Your task to perform on an android device: check data usage Image 0: 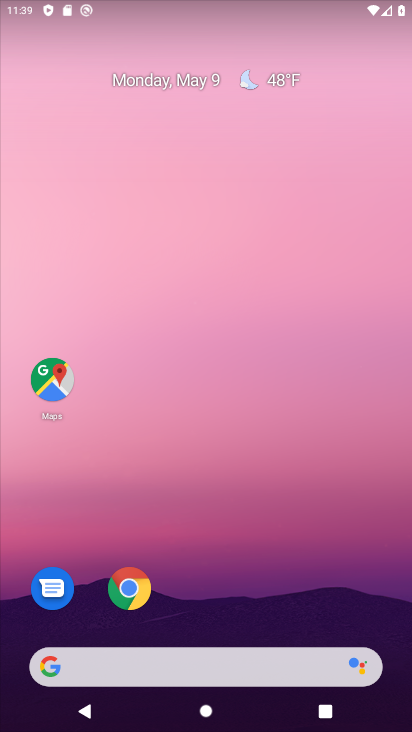
Step 0: drag from (251, 561) to (257, 219)
Your task to perform on an android device: check data usage Image 1: 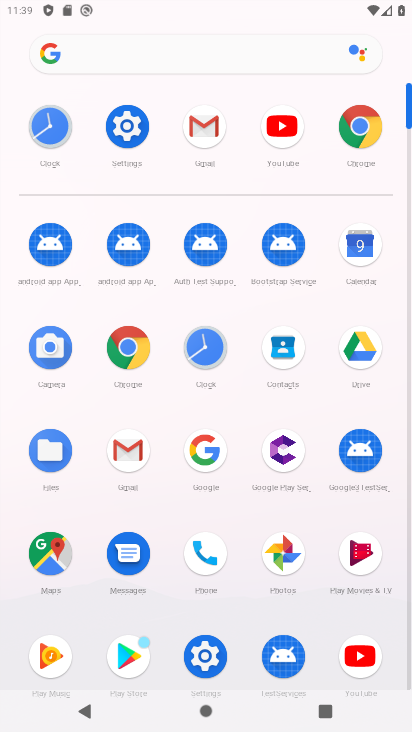
Step 1: click (120, 121)
Your task to perform on an android device: check data usage Image 2: 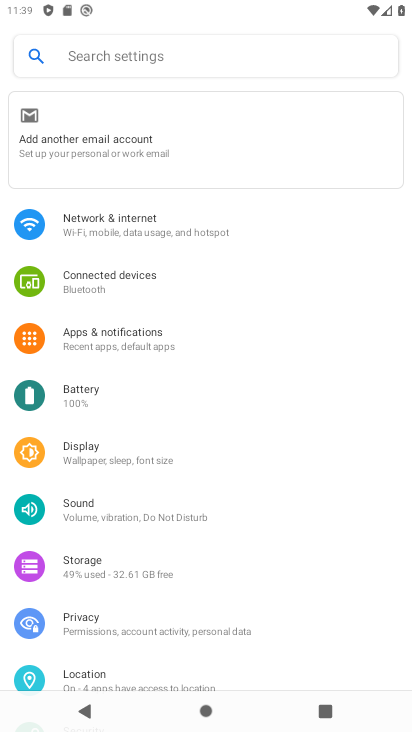
Step 2: click (163, 219)
Your task to perform on an android device: check data usage Image 3: 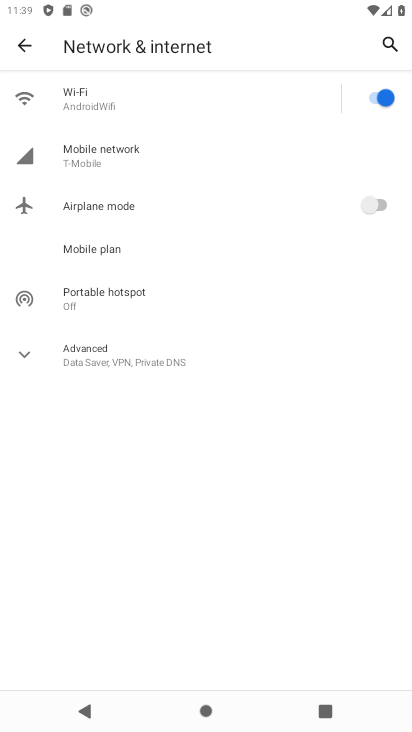
Step 3: click (148, 160)
Your task to perform on an android device: check data usage Image 4: 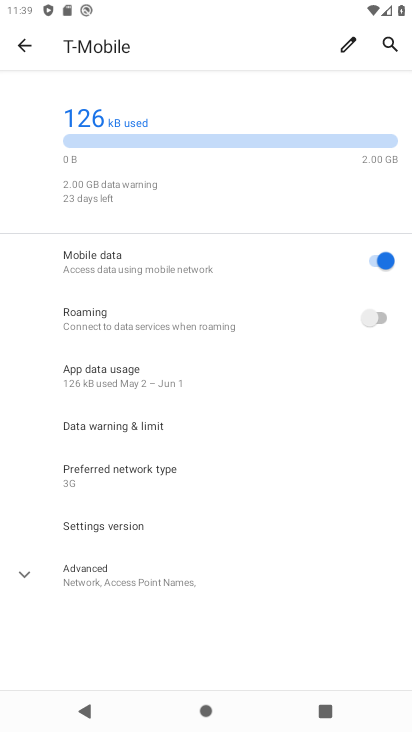
Step 4: click (166, 271)
Your task to perform on an android device: check data usage Image 5: 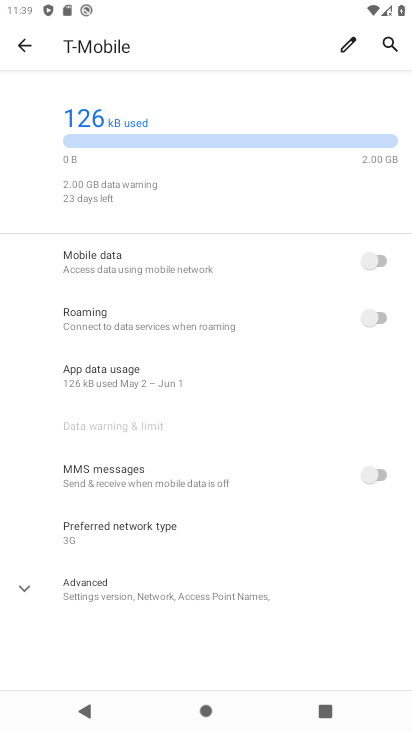
Step 5: click (22, 49)
Your task to perform on an android device: check data usage Image 6: 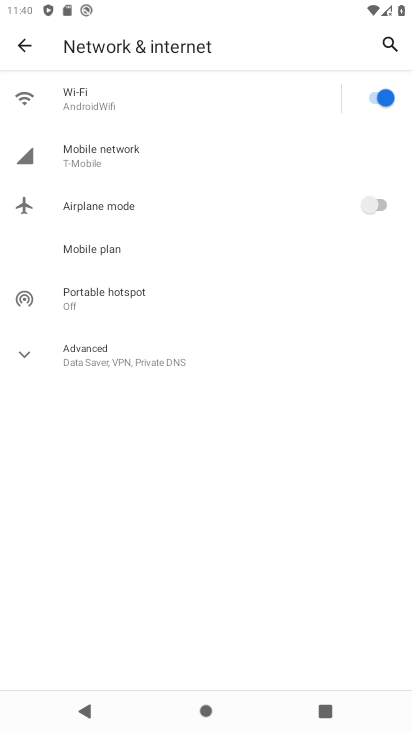
Step 6: task complete